Your task to perform on an android device: all mails in gmail Image 0: 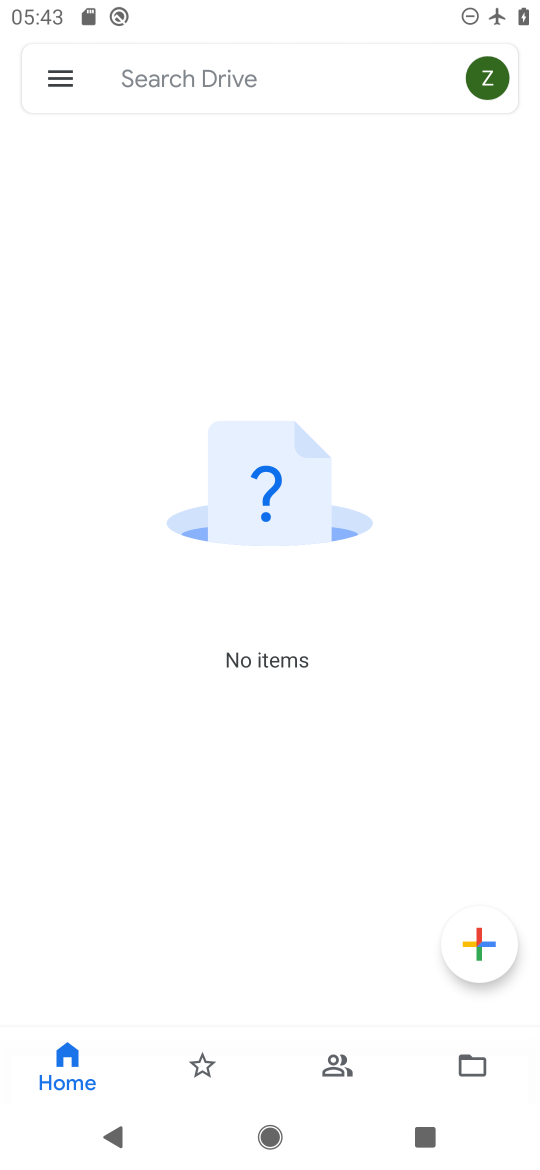
Step 0: press home button
Your task to perform on an android device: all mails in gmail Image 1: 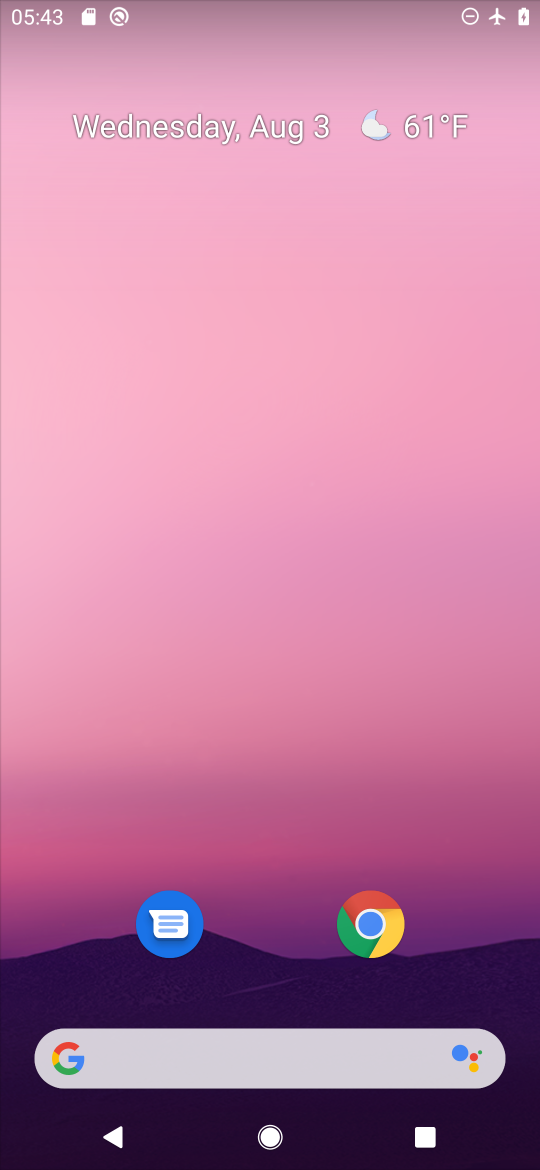
Step 1: drag from (293, 724) to (293, 286)
Your task to perform on an android device: all mails in gmail Image 2: 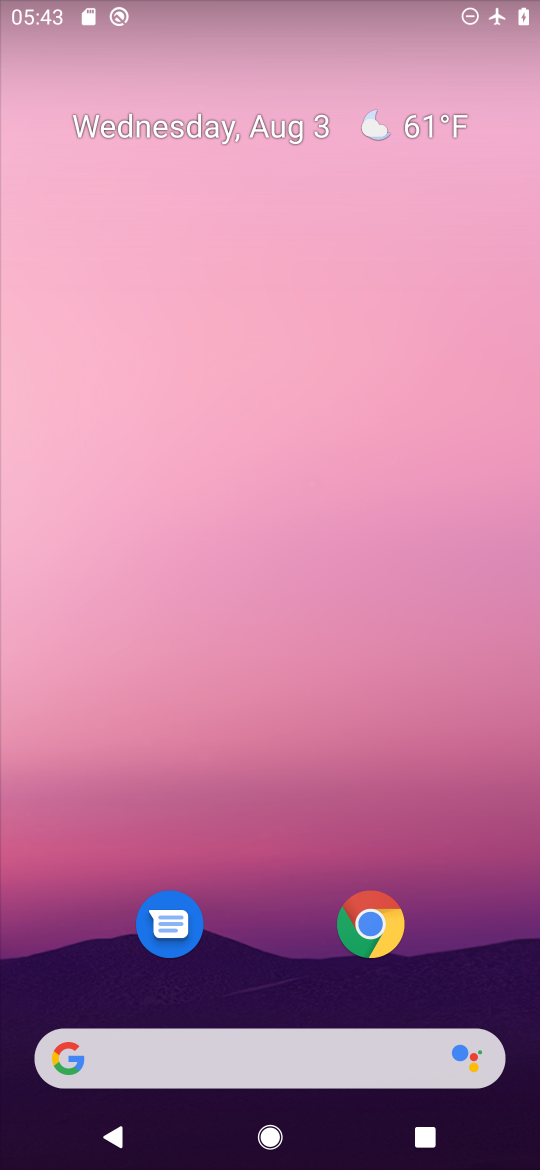
Step 2: drag from (269, 957) to (287, 99)
Your task to perform on an android device: all mails in gmail Image 3: 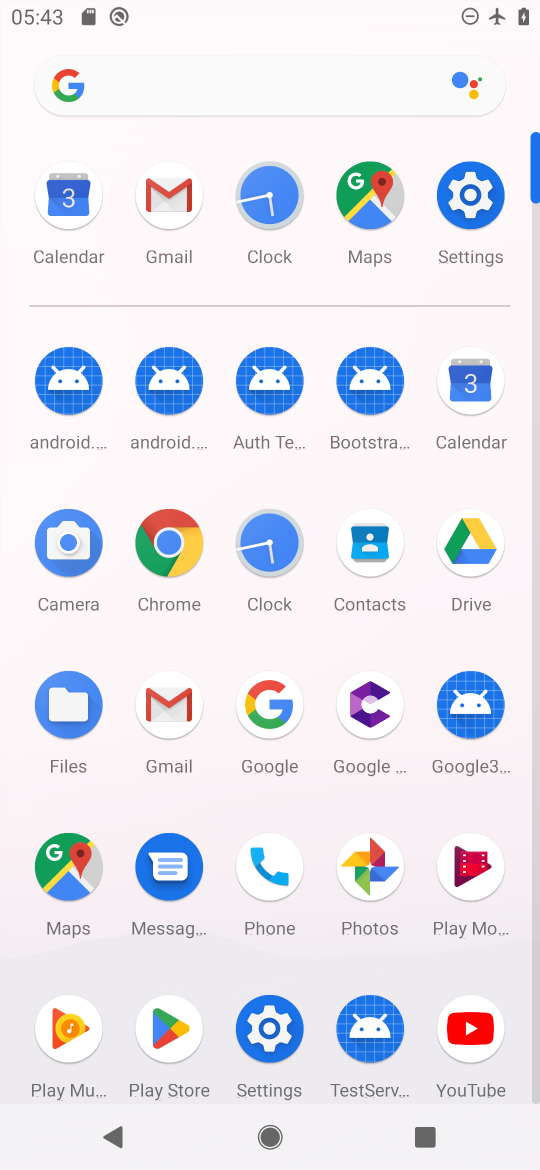
Step 3: click (169, 207)
Your task to perform on an android device: all mails in gmail Image 4: 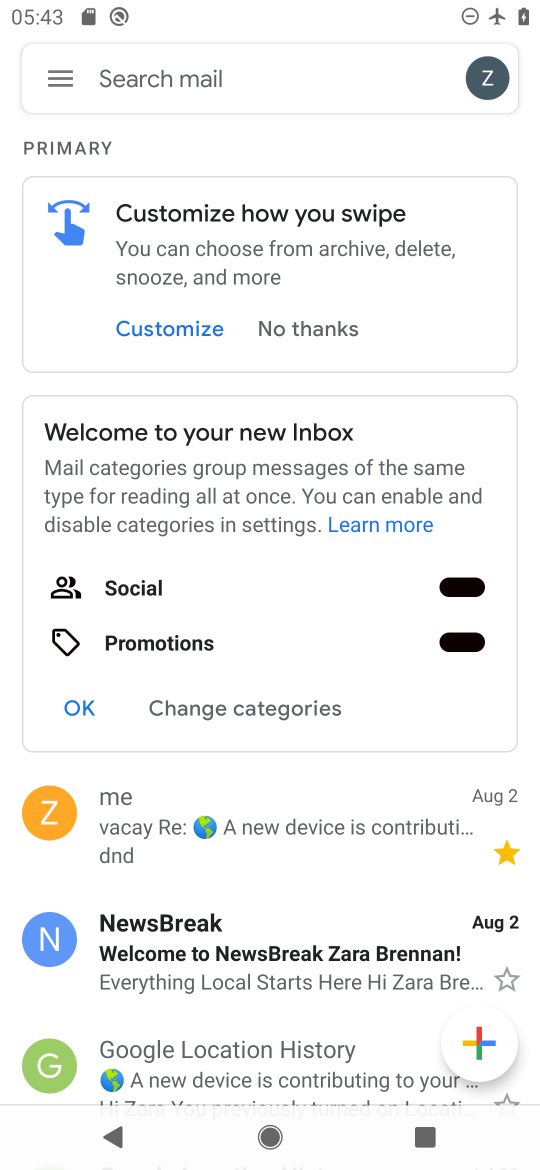
Step 4: click (57, 85)
Your task to perform on an android device: all mails in gmail Image 5: 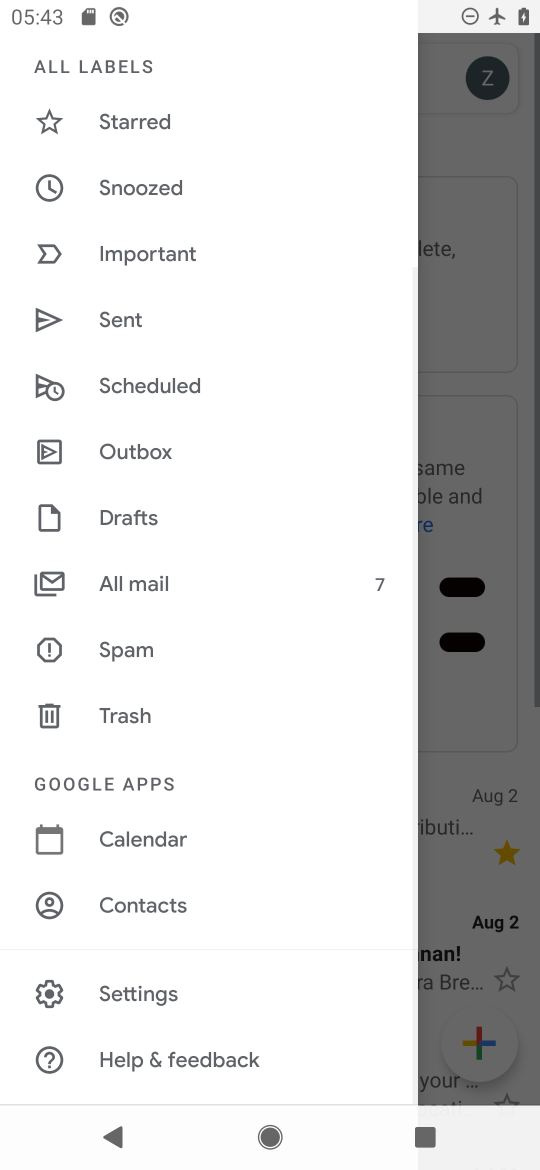
Step 5: click (160, 586)
Your task to perform on an android device: all mails in gmail Image 6: 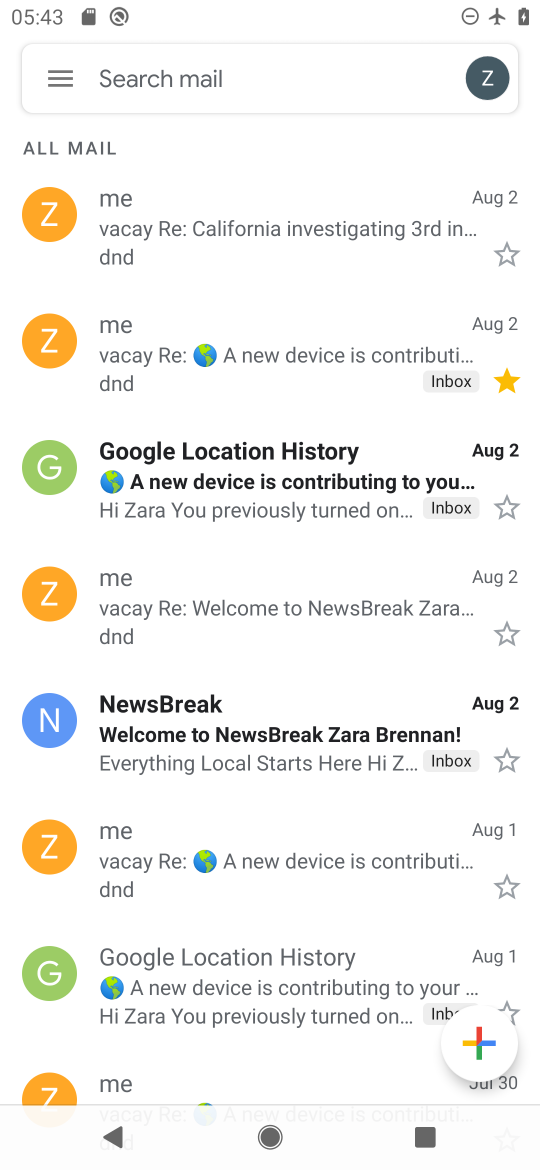
Step 6: task complete